Your task to perform on an android device: Go to accessibility settings Image 0: 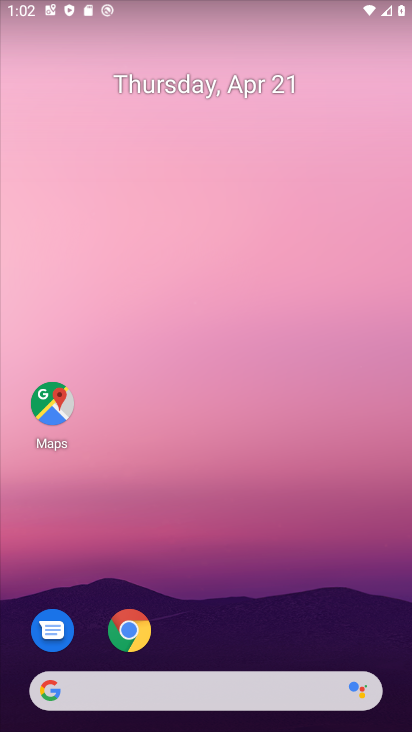
Step 0: drag from (269, 631) to (229, 151)
Your task to perform on an android device: Go to accessibility settings Image 1: 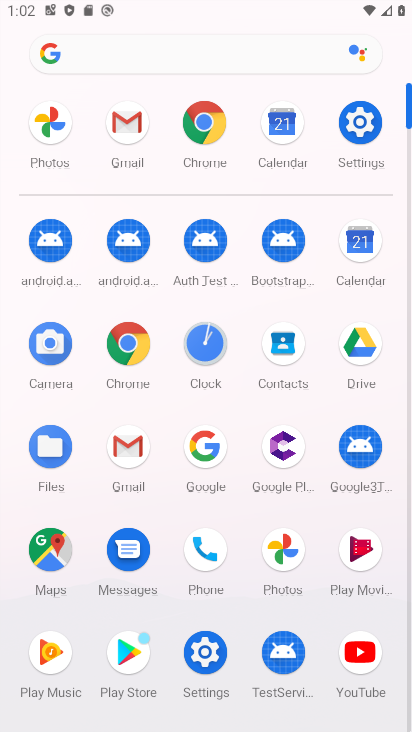
Step 1: click (366, 129)
Your task to perform on an android device: Go to accessibility settings Image 2: 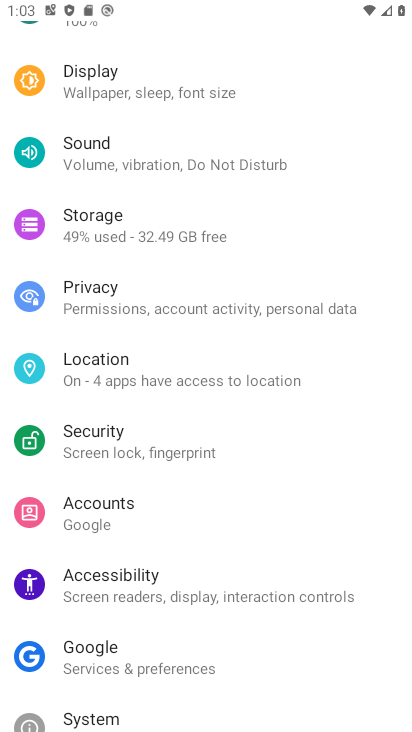
Step 2: click (206, 602)
Your task to perform on an android device: Go to accessibility settings Image 3: 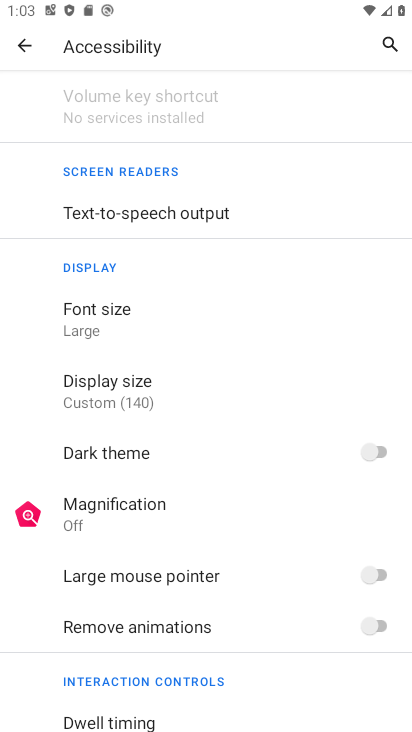
Step 3: task complete